Your task to perform on an android device: change alarm snooze length Image 0: 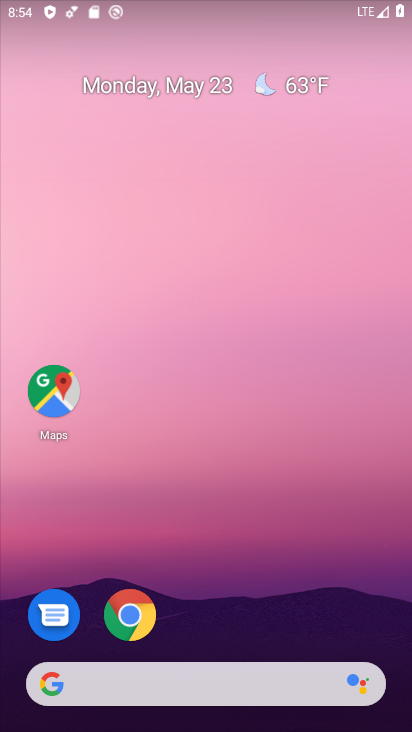
Step 0: drag from (222, 632) to (238, 126)
Your task to perform on an android device: change alarm snooze length Image 1: 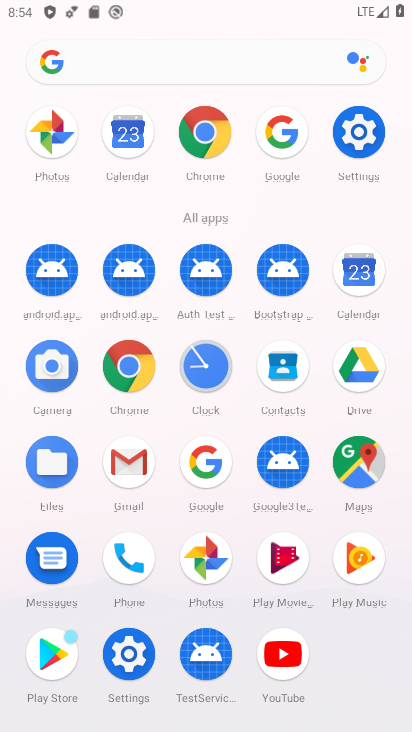
Step 1: click (200, 374)
Your task to perform on an android device: change alarm snooze length Image 2: 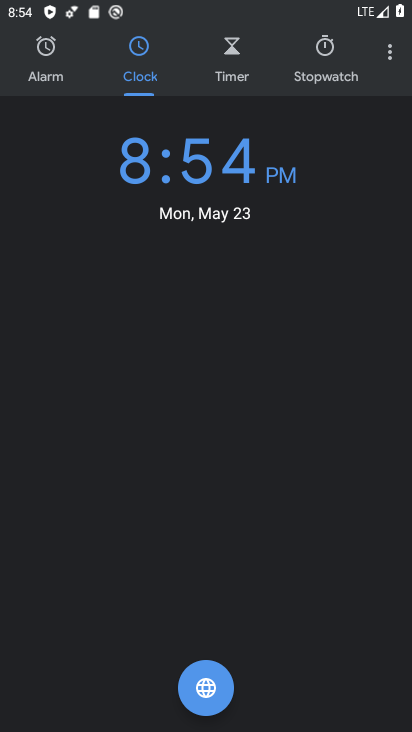
Step 2: click (381, 52)
Your task to perform on an android device: change alarm snooze length Image 3: 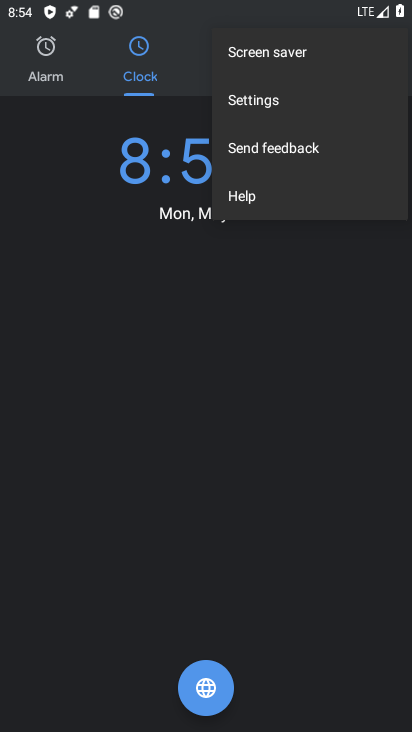
Step 3: click (257, 102)
Your task to perform on an android device: change alarm snooze length Image 4: 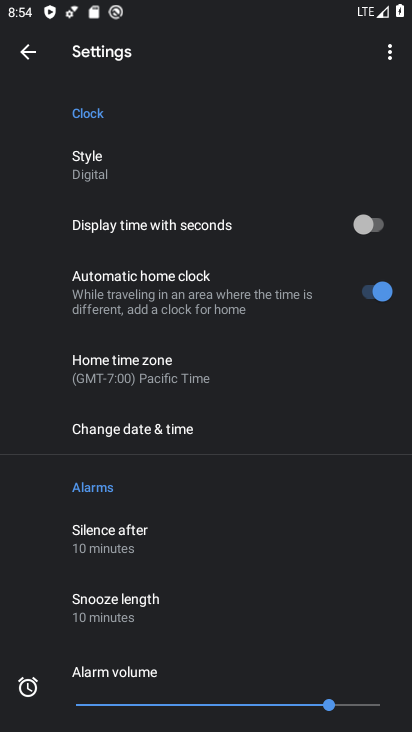
Step 4: click (122, 625)
Your task to perform on an android device: change alarm snooze length Image 5: 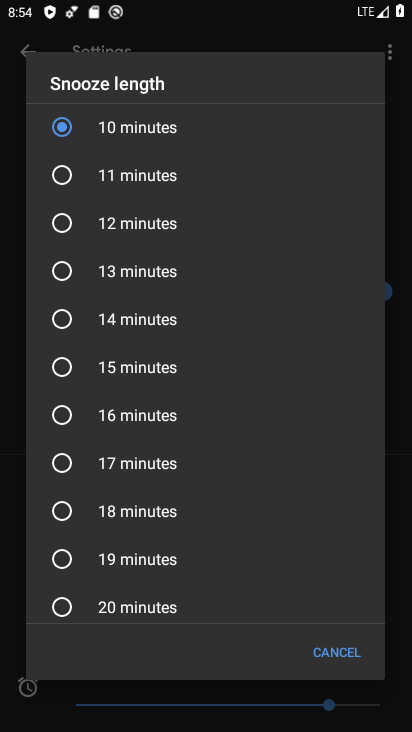
Step 5: click (62, 268)
Your task to perform on an android device: change alarm snooze length Image 6: 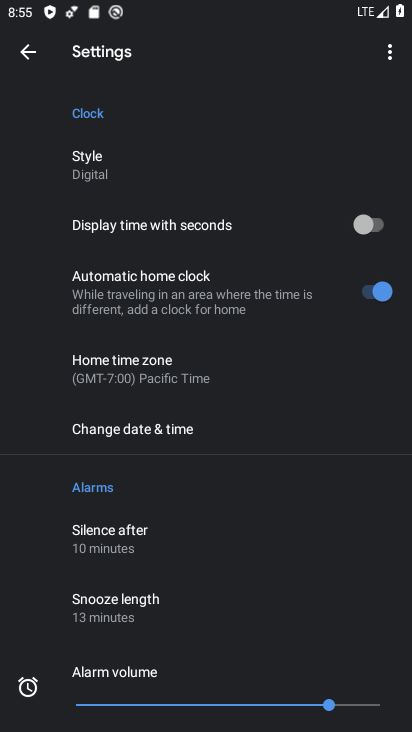
Step 6: task complete